Your task to perform on an android device: Open Android settings Image 0: 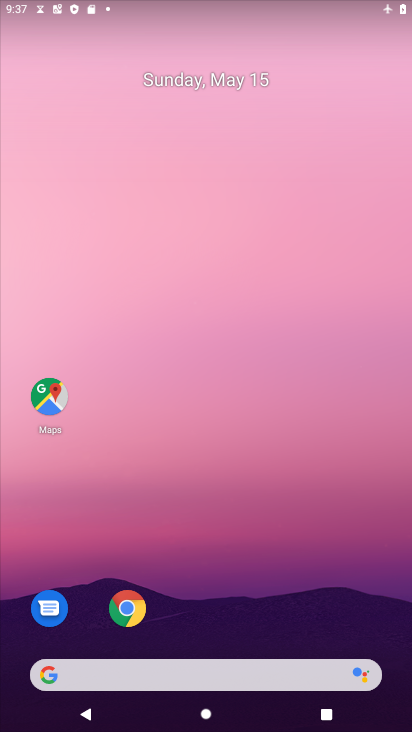
Step 0: drag from (314, 530) to (388, 47)
Your task to perform on an android device: Open Android settings Image 1: 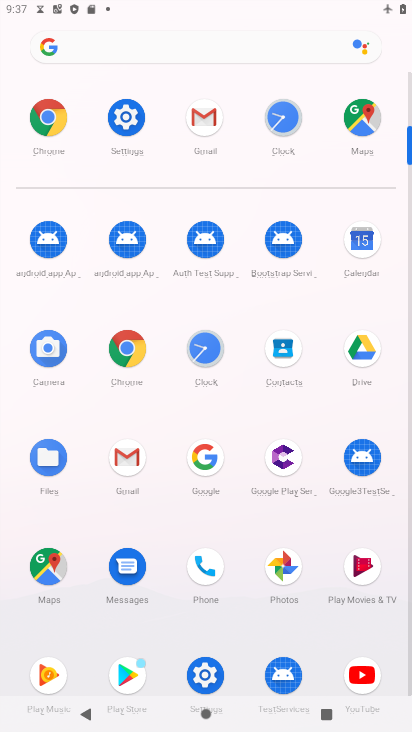
Step 1: drag from (231, 271) to (281, 48)
Your task to perform on an android device: Open Android settings Image 2: 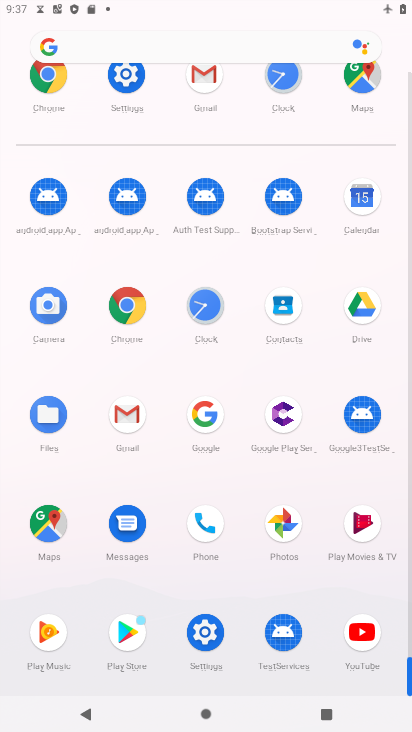
Step 2: click (142, 85)
Your task to perform on an android device: Open Android settings Image 3: 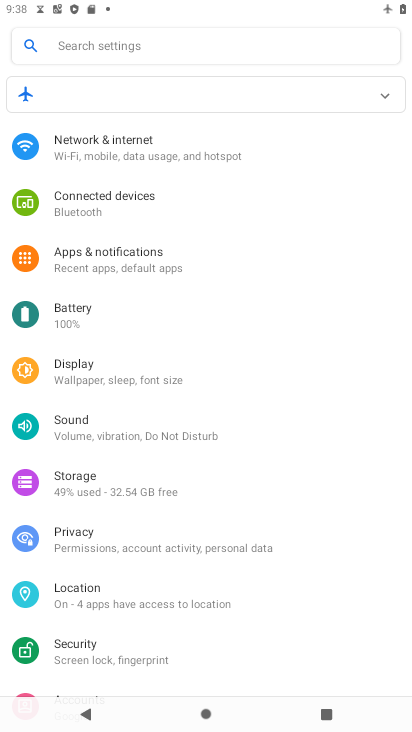
Step 3: task complete